Your task to perform on an android device: open chrome privacy settings Image 0: 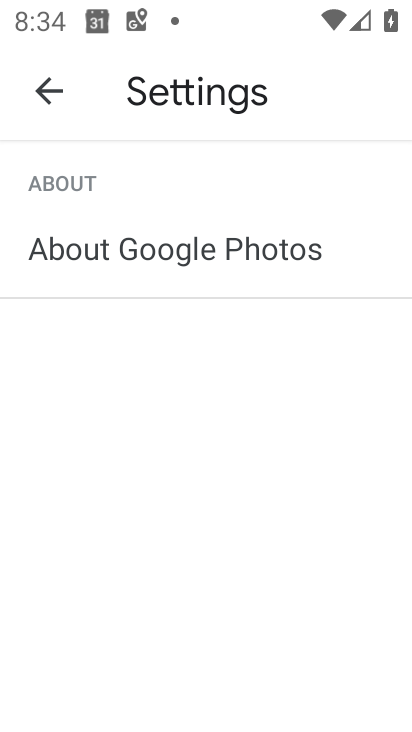
Step 0: press home button
Your task to perform on an android device: open chrome privacy settings Image 1: 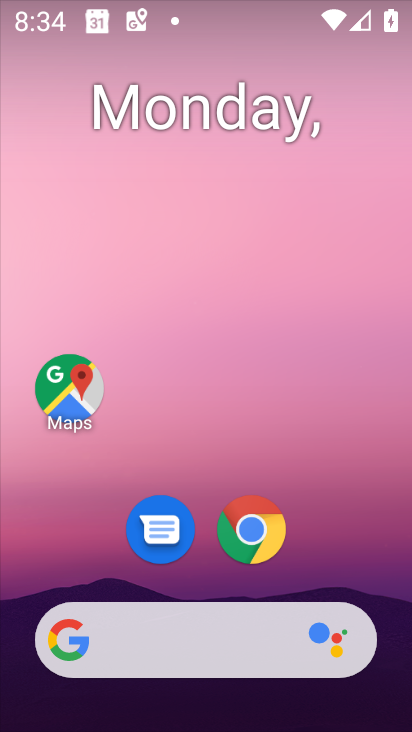
Step 1: click (253, 533)
Your task to perform on an android device: open chrome privacy settings Image 2: 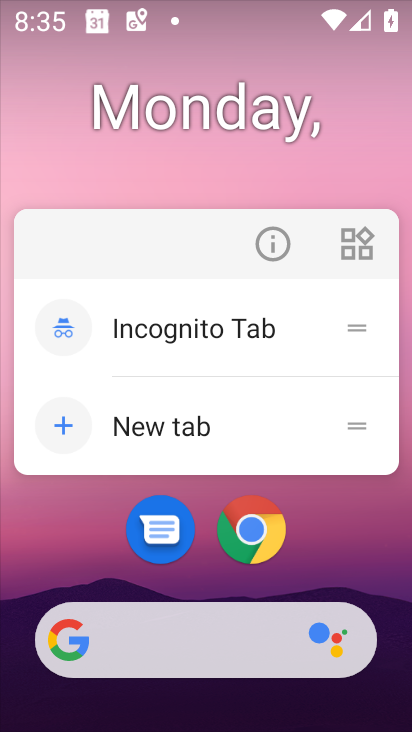
Step 2: click (275, 248)
Your task to perform on an android device: open chrome privacy settings Image 3: 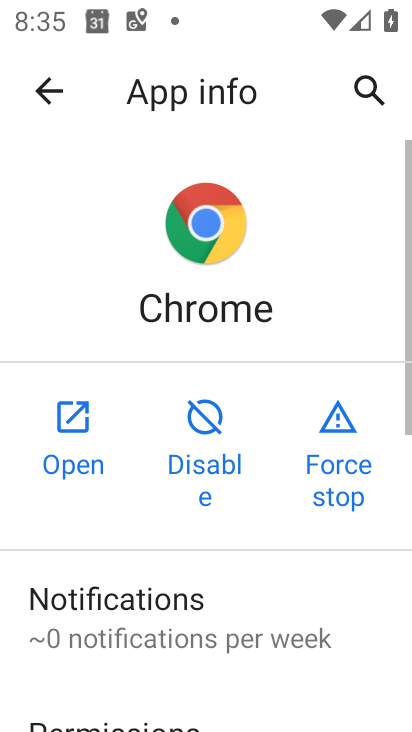
Step 3: click (73, 441)
Your task to perform on an android device: open chrome privacy settings Image 4: 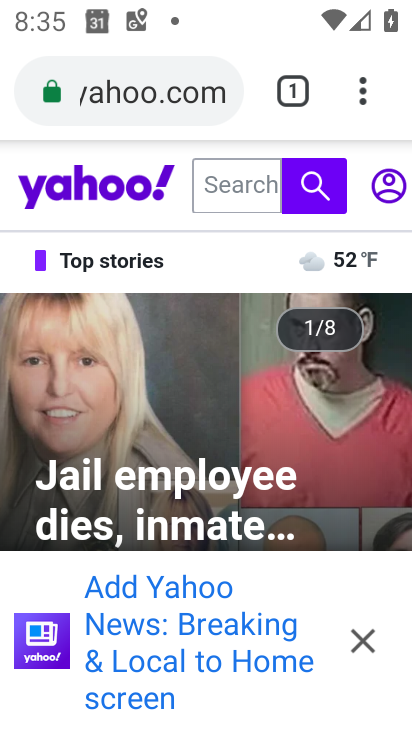
Step 4: click (357, 92)
Your task to perform on an android device: open chrome privacy settings Image 5: 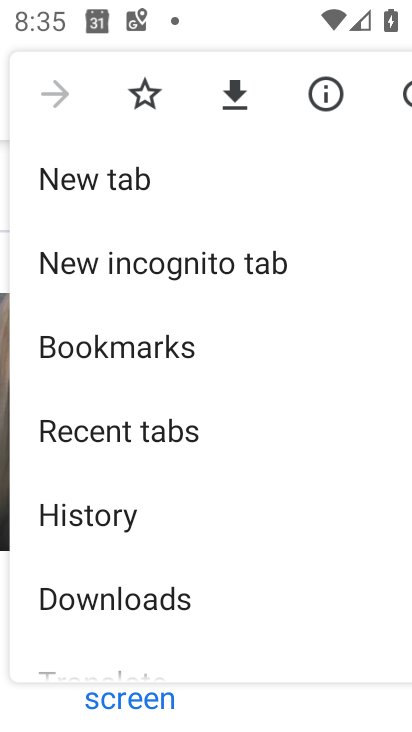
Step 5: drag from (149, 598) to (224, 254)
Your task to perform on an android device: open chrome privacy settings Image 6: 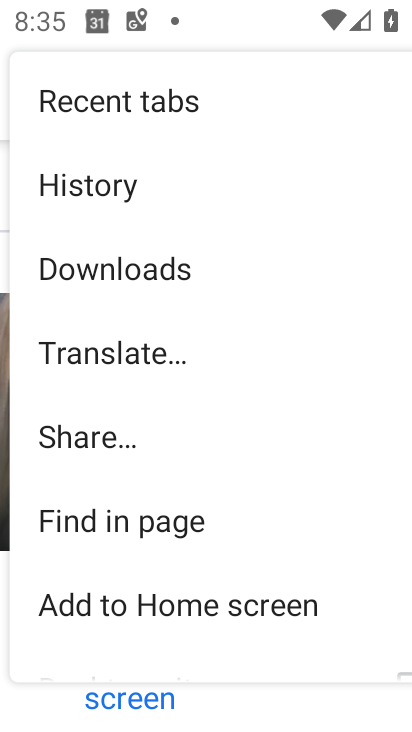
Step 6: drag from (99, 620) to (205, 238)
Your task to perform on an android device: open chrome privacy settings Image 7: 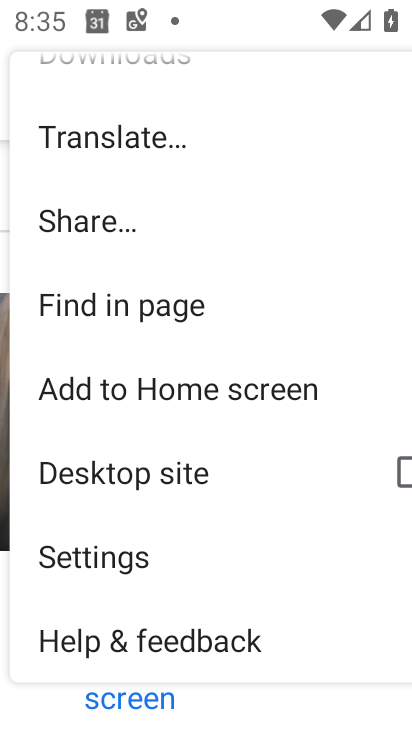
Step 7: click (117, 546)
Your task to perform on an android device: open chrome privacy settings Image 8: 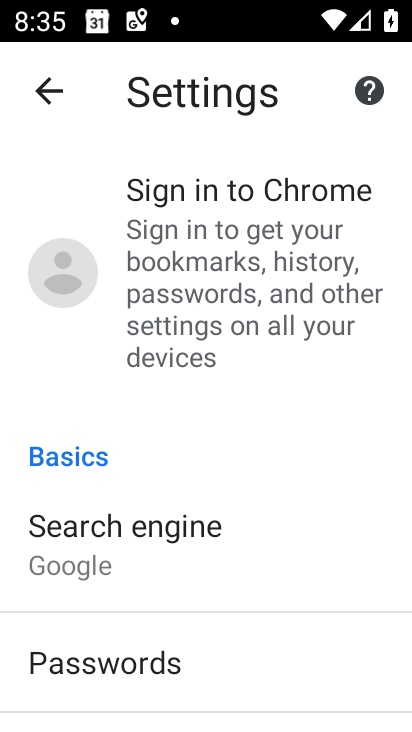
Step 8: drag from (156, 694) to (259, 321)
Your task to perform on an android device: open chrome privacy settings Image 9: 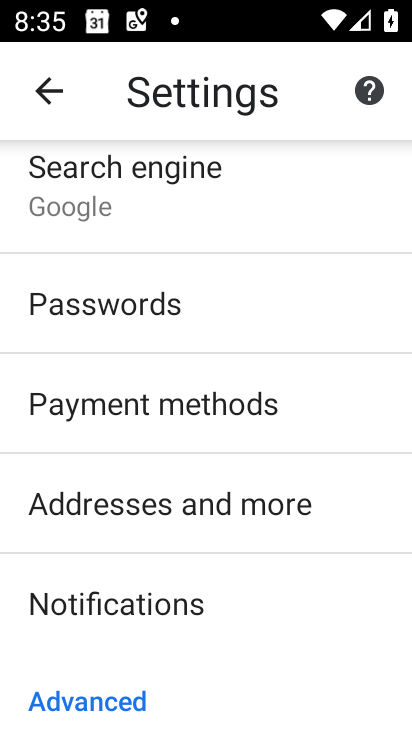
Step 9: drag from (56, 658) to (211, 296)
Your task to perform on an android device: open chrome privacy settings Image 10: 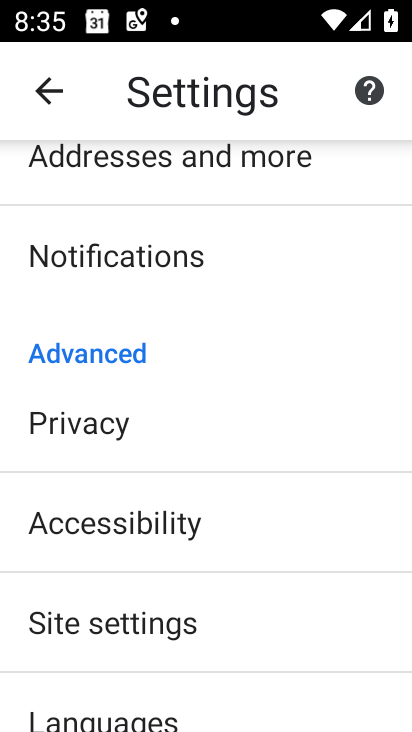
Step 10: click (97, 429)
Your task to perform on an android device: open chrome privacy settings Image 11: 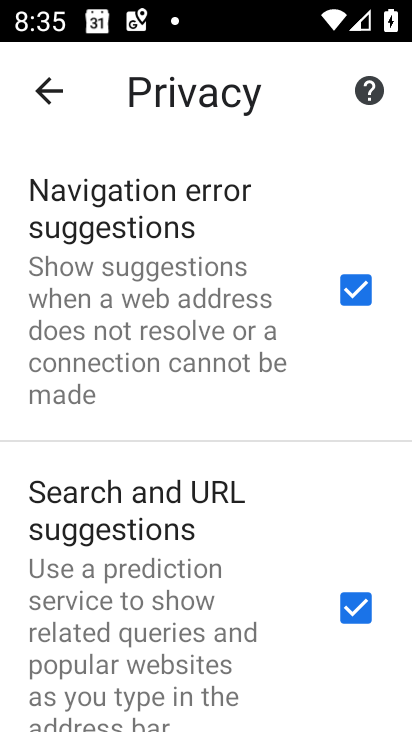
Step 11: task complete